Your task to perform on an android device: find which apps use the phone's location Image 0: 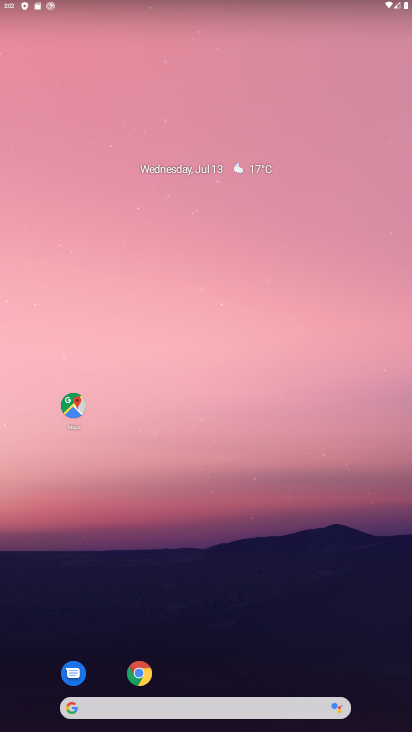
Step 0: drag from (241, 549) to (288, 103)
Your task to perform on an android device: find which apps use the phone's location Image 1: 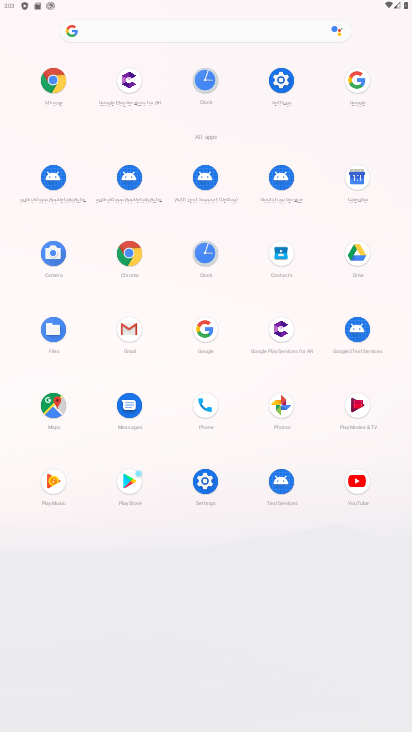
Step 1: click (277, 77)
Your task to perform on an android device: find which apps use the phone's location Image 2: 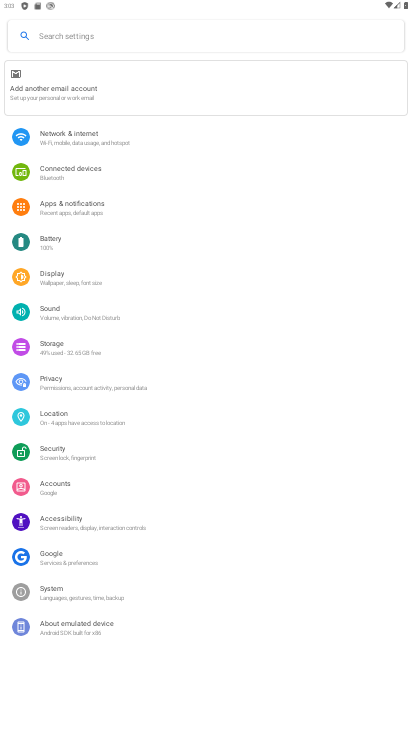
Step 2: click (78, 208)
Your task to perform on an android device: find which apps use the phone's location Image 3: 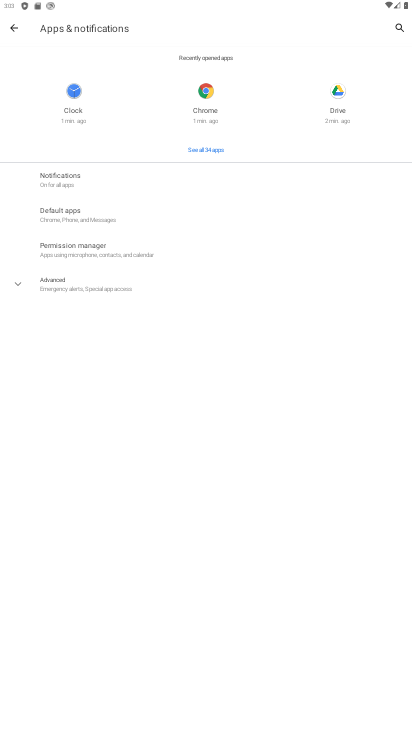
Step 3: click (78, 240)
Your task to perform on an android device: find which apps use the phone's location Image 4: 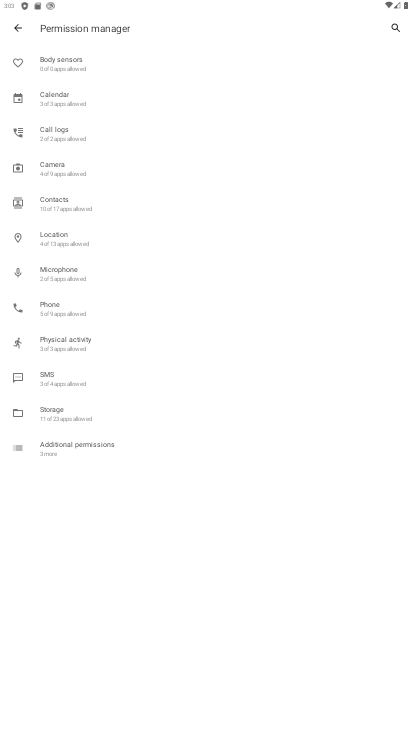
Step 4: task complete